Your task to perform on an android device: Search for "asus rog" on newegg.com, select the first entry, and add it to the cart. Image 0: 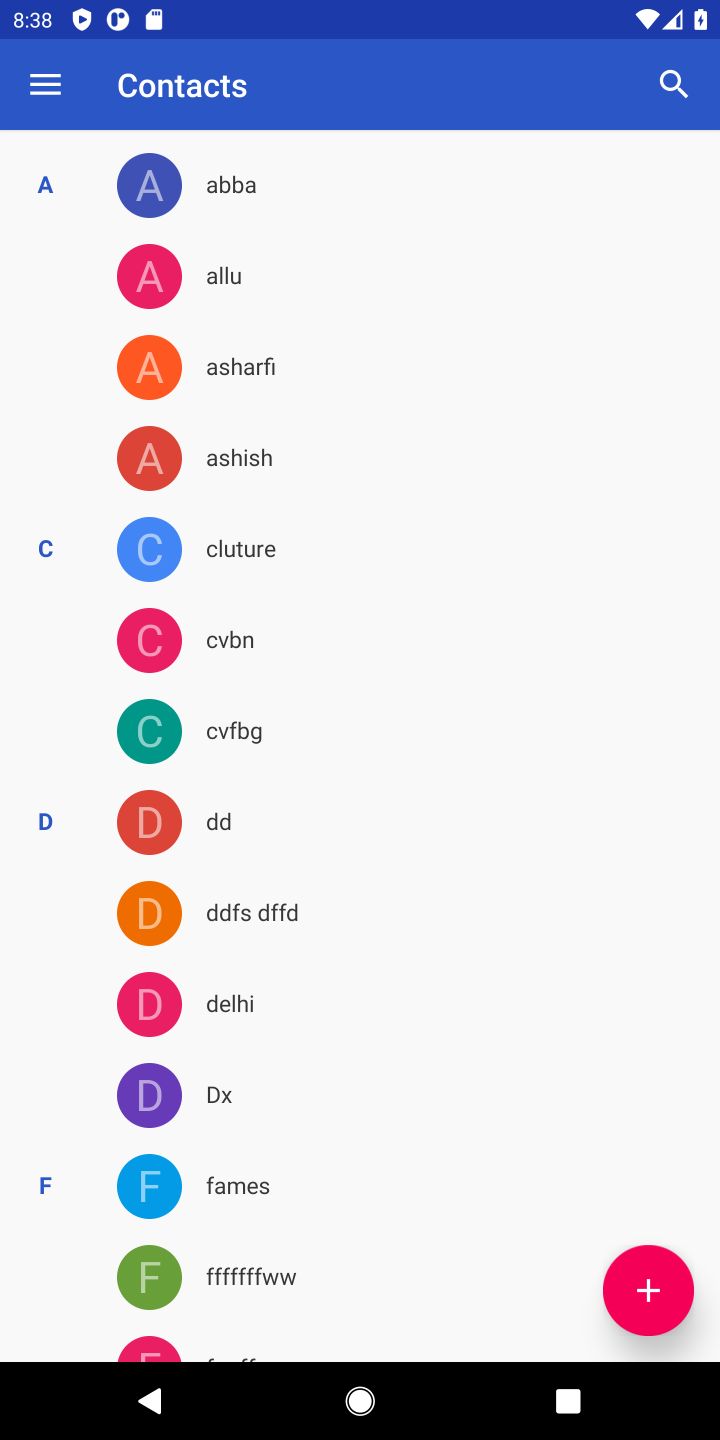
Step 0: press home button
Your task to perform on an android device: Search for "asus rog" on newegg.com, select the first entry, and add it to the cart. Image 1: 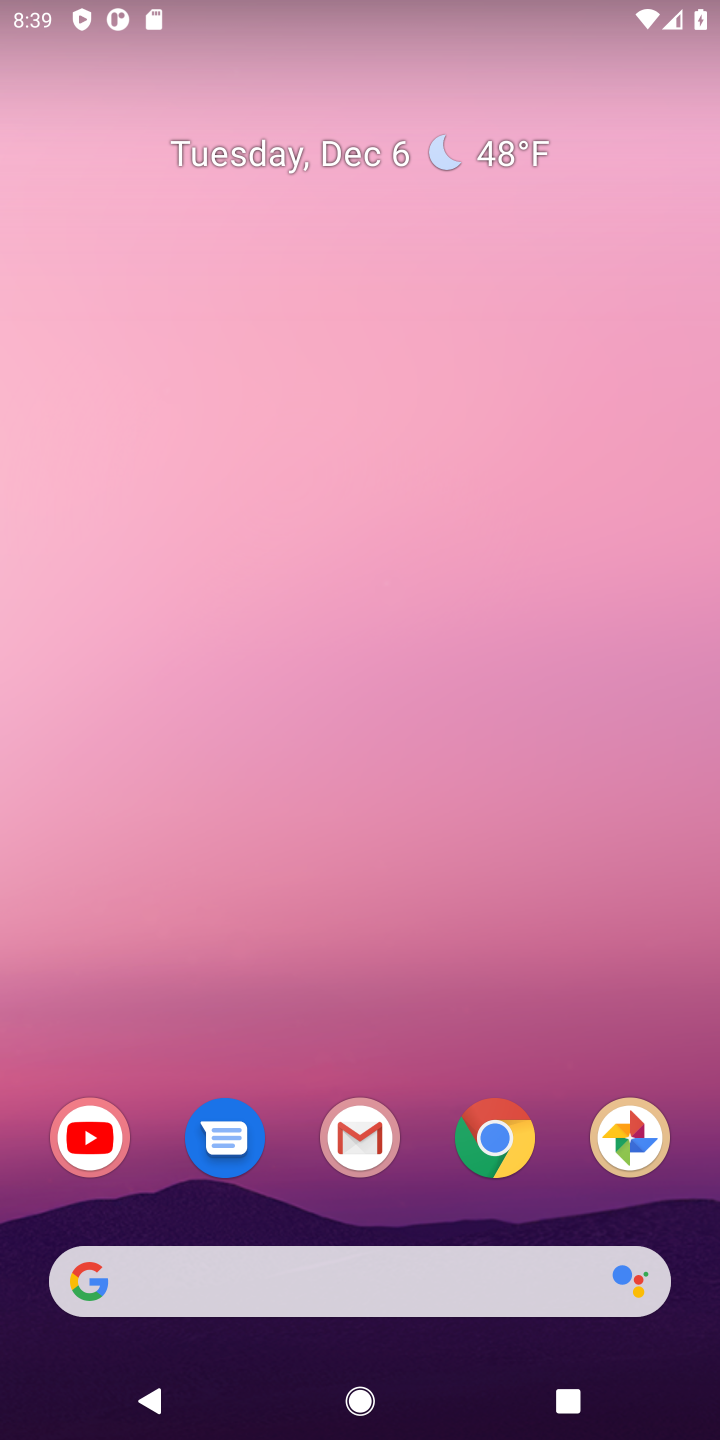
Step 1: click (513, 1142)
Your task to perform on an android device: Search for "asus rog" on newegg.com, select the first entry, and add it to the cart. Image 2: 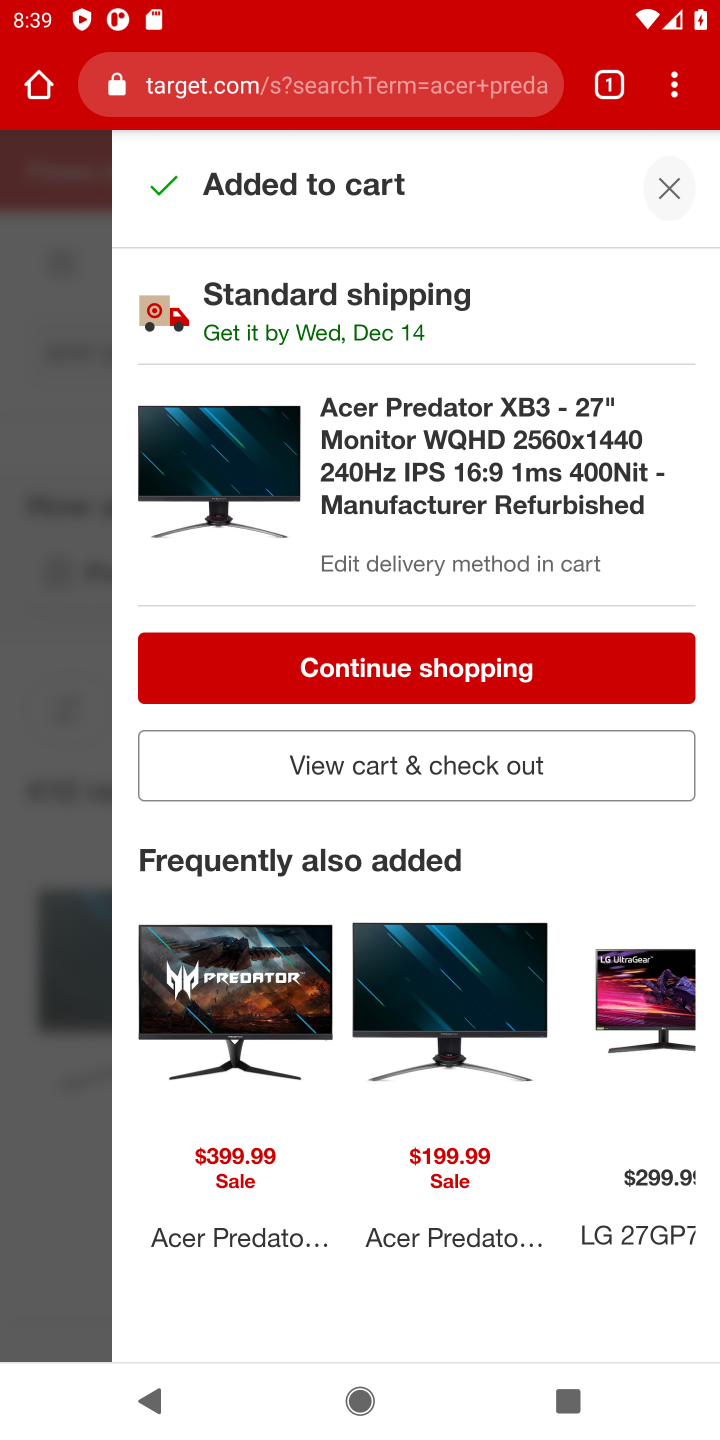
Step 2: click (314, 95)
Your task to perform on an android device: Search for "asus rog" on newegg.com, select the first entry, and add it to the cart. Image 3: 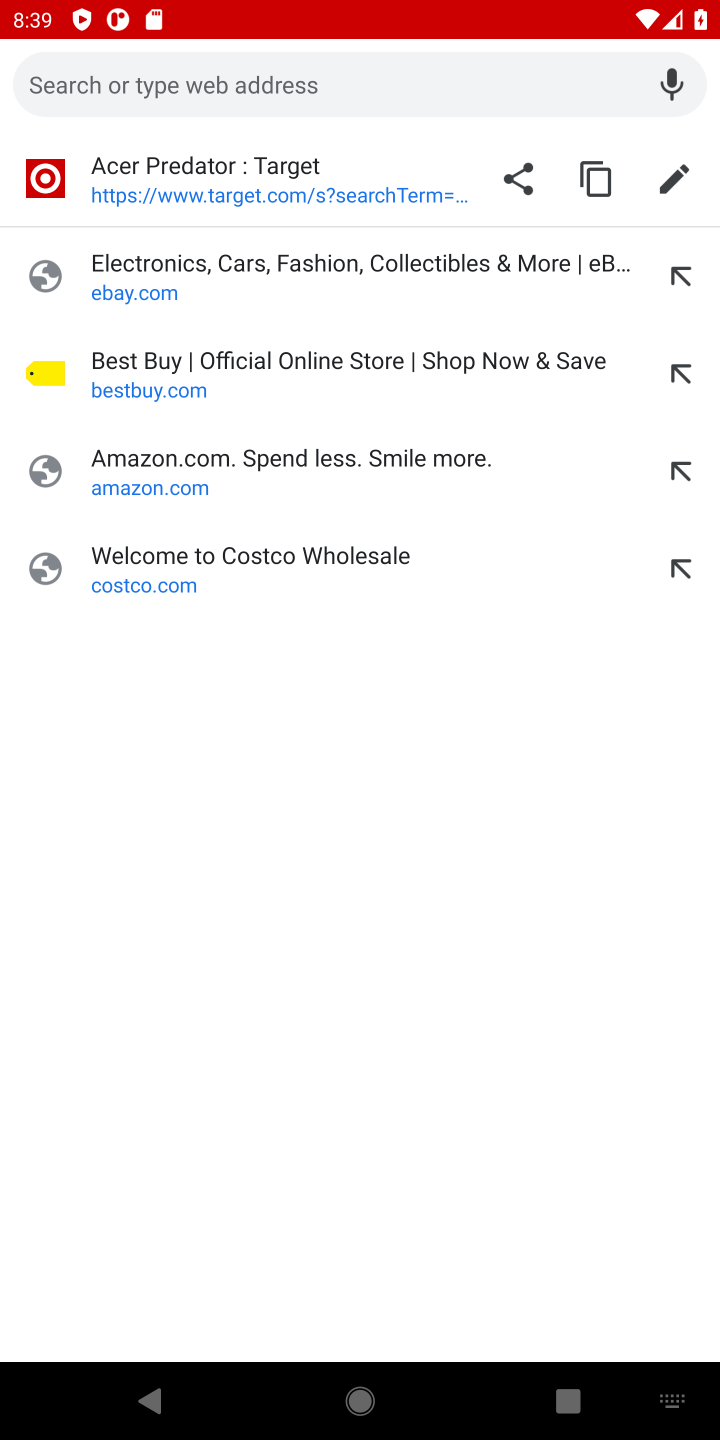
Step 3: type "newegg.com"
Your task to perform on an android device: Search for "asus rog" on newegg.com, select the first entry, and add it to the cart. Image 4: 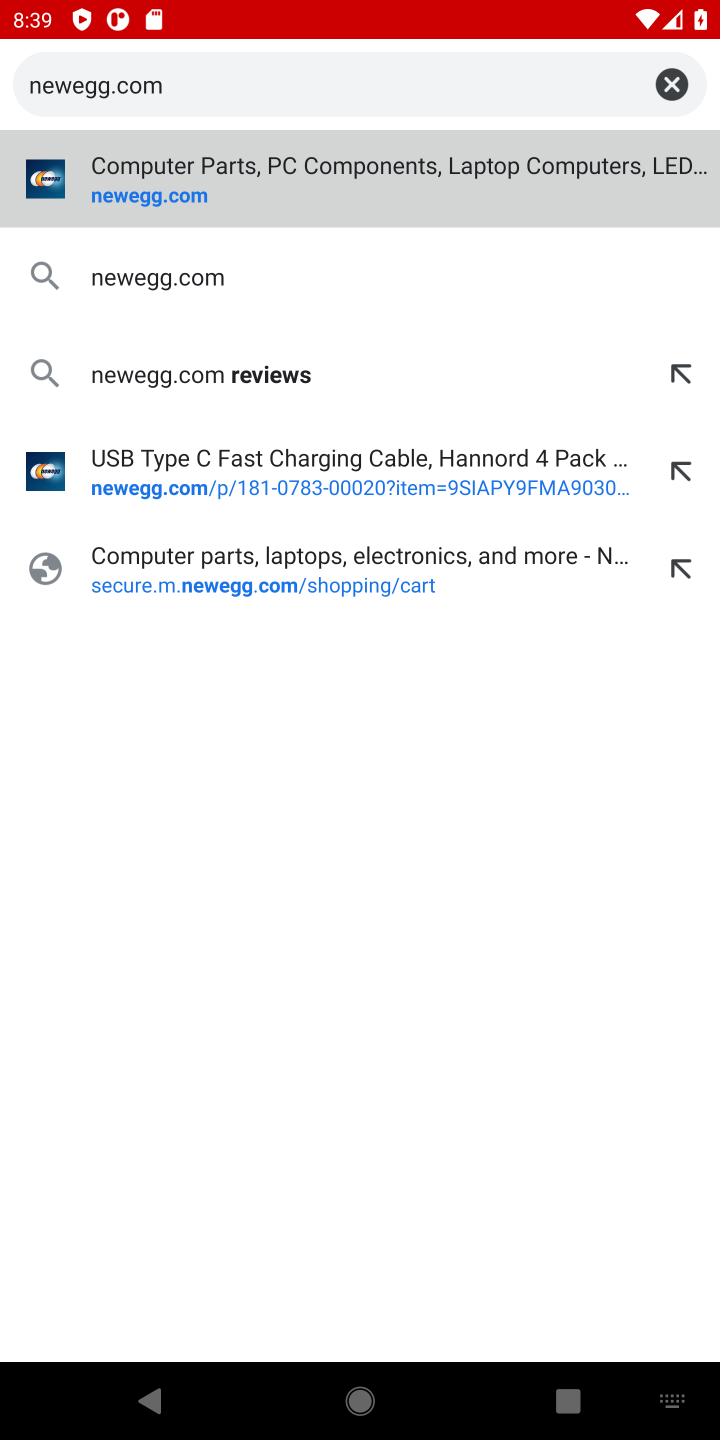
Step 4: click (113, 179)
Your task to perform on an android device: Search for "asus rog" on newegg.com, select the first entry, and add it to the cart. Image 5: 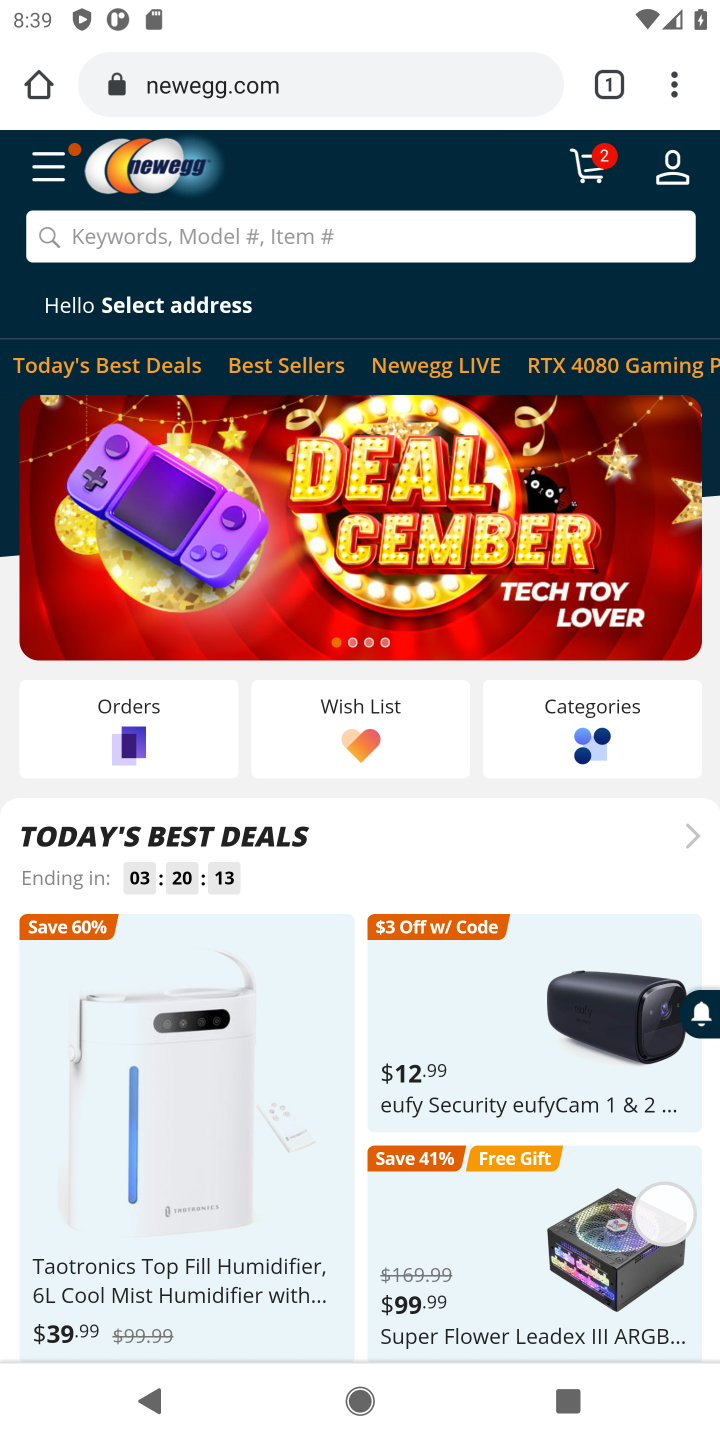
Step 5: click (120, 244)
Your task to perform on an android device: Search for "asus rog" on newegg.com, select the first entry, and add it to the cart. Image 6: 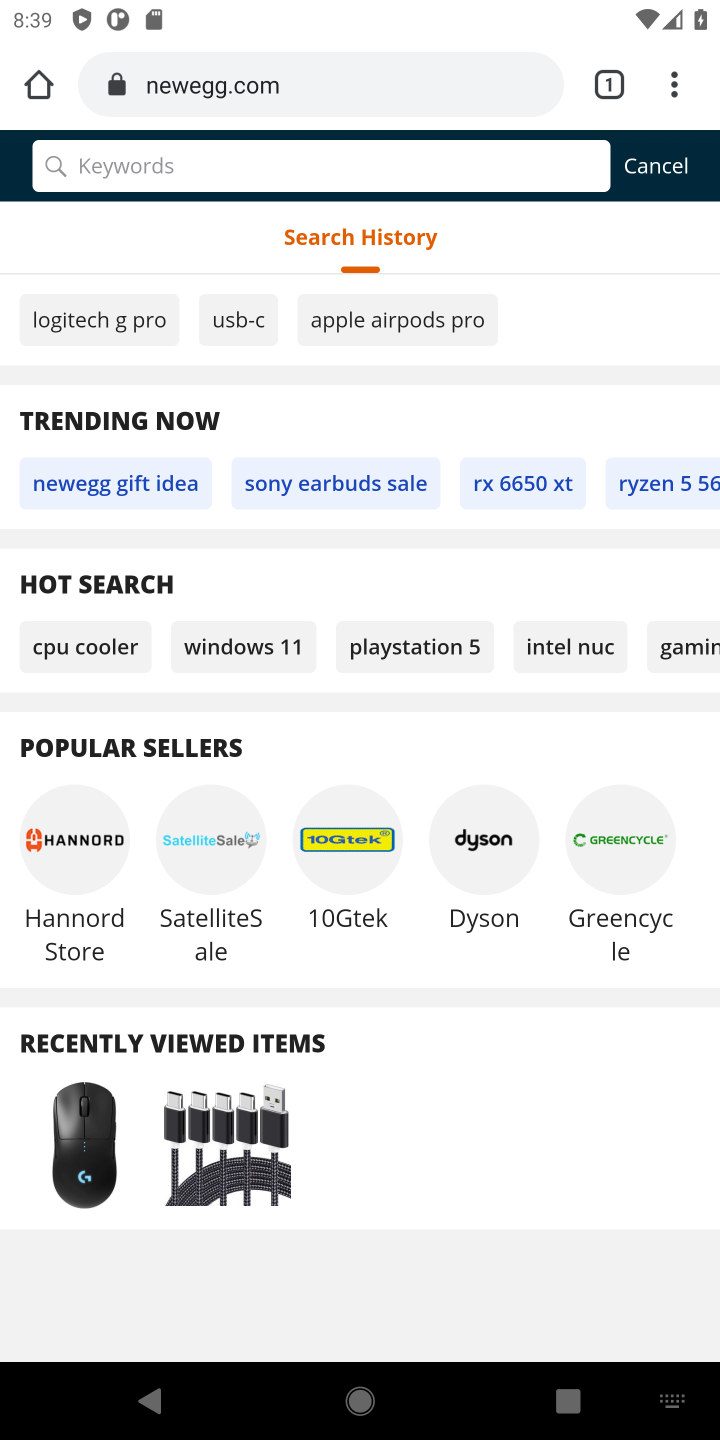
Step 6: type "asus rog"
Your task to perform on an android device: Search for "asus rog" on newegg.com, select the first entry, and add it to the cart. Image 7: 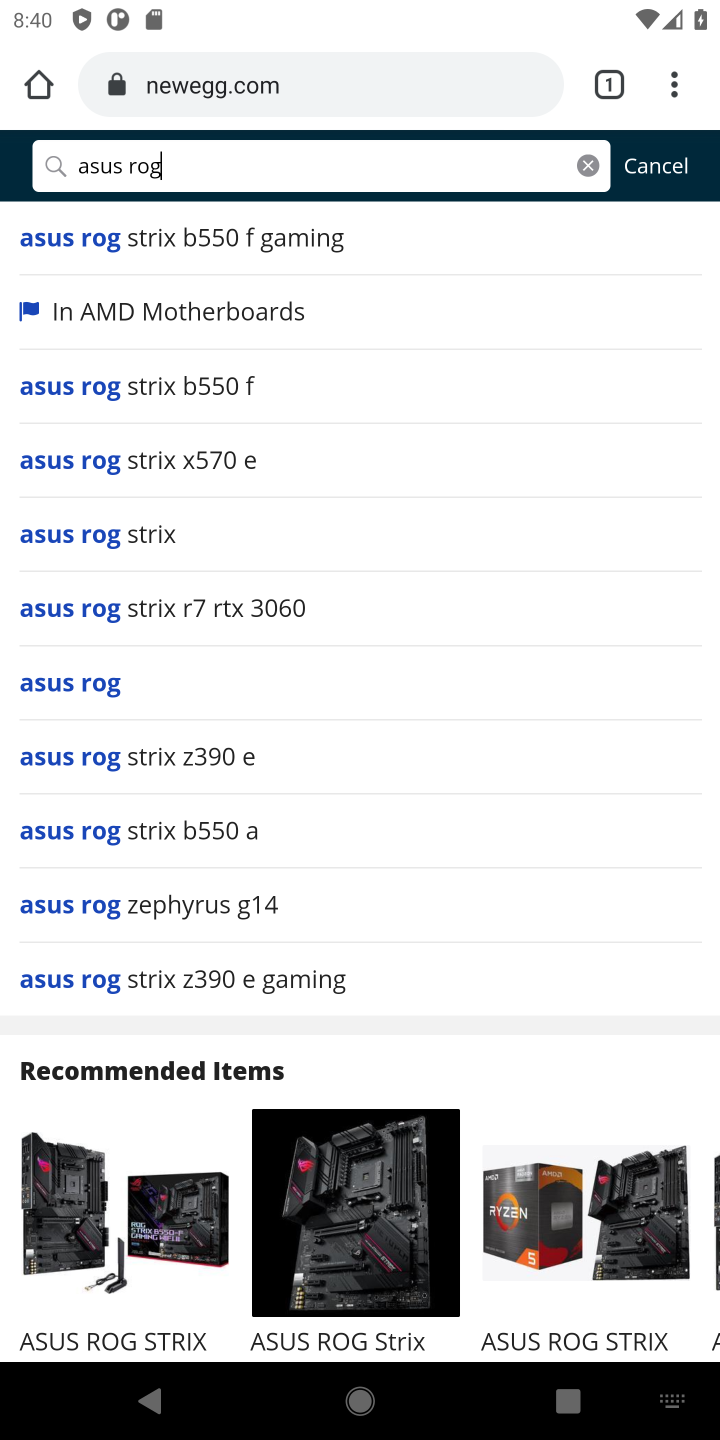
Step 7: click (57, 682)
Your task to perform on an android device: Search for "asus rog" on newegg.com, select the first entry, and add it to the cart. Image 8: 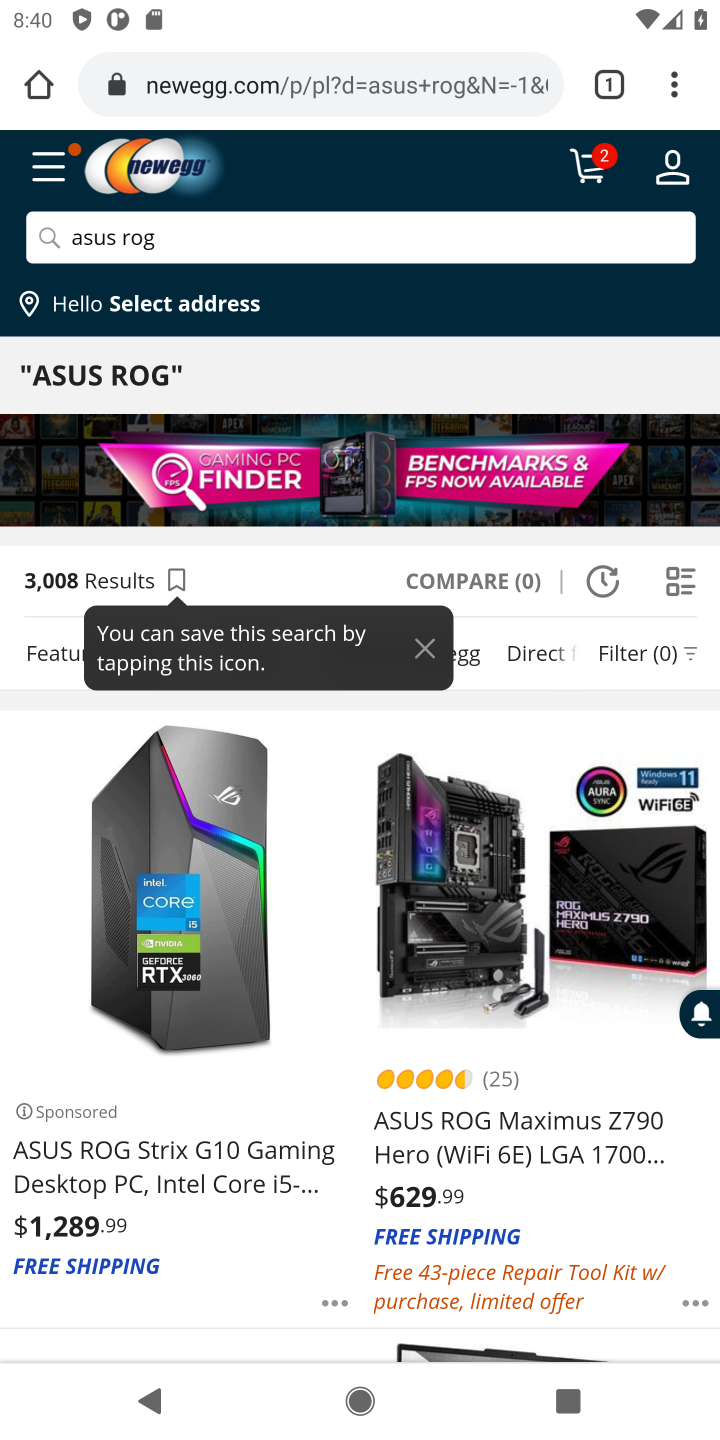
Step 8: click (143, 1166)
Your task to perform on an android device: Search for "asus rog" on newegg.com, select the first entry, and add it to the cart. Image 9: 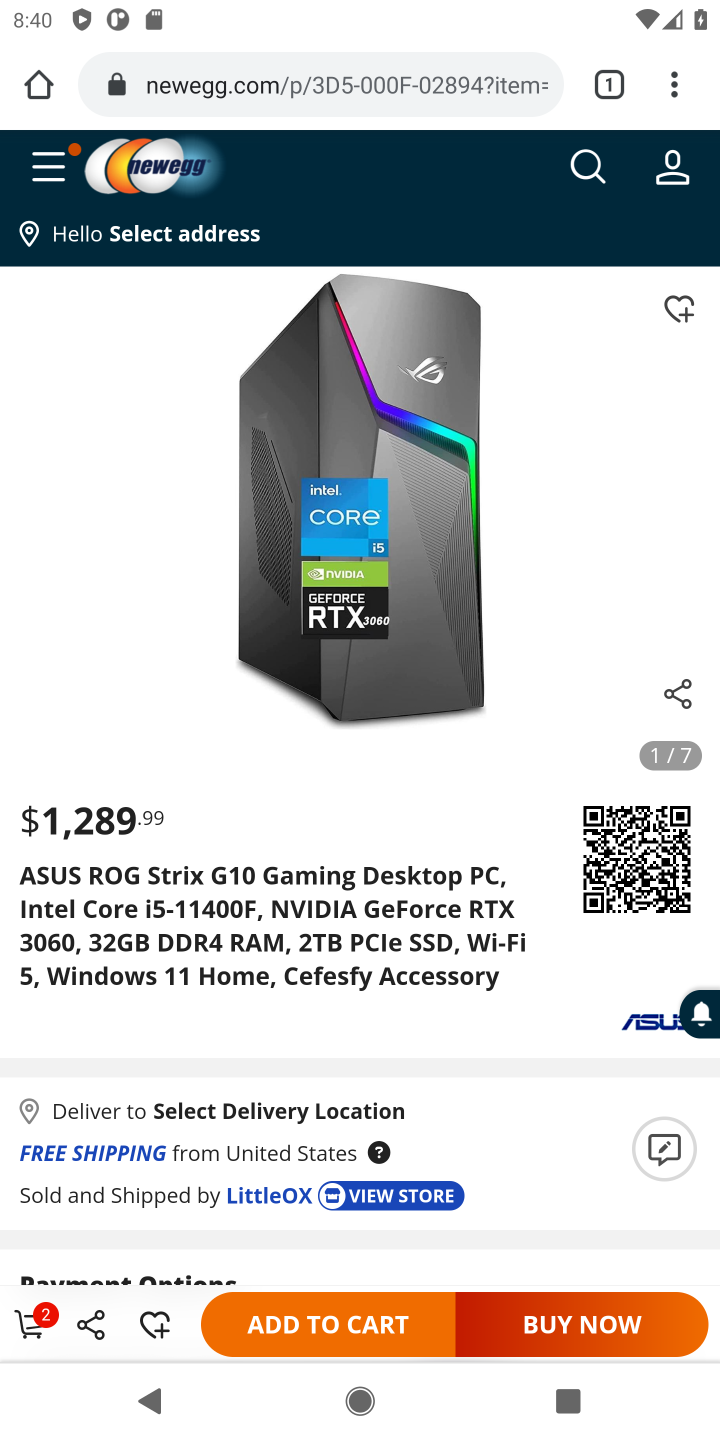
Step 9: click (312, 1340)
Your task to perform on an android device: Search for "asus rog" on newegg.com, select the first entry, and add it to the cart. Image 10: 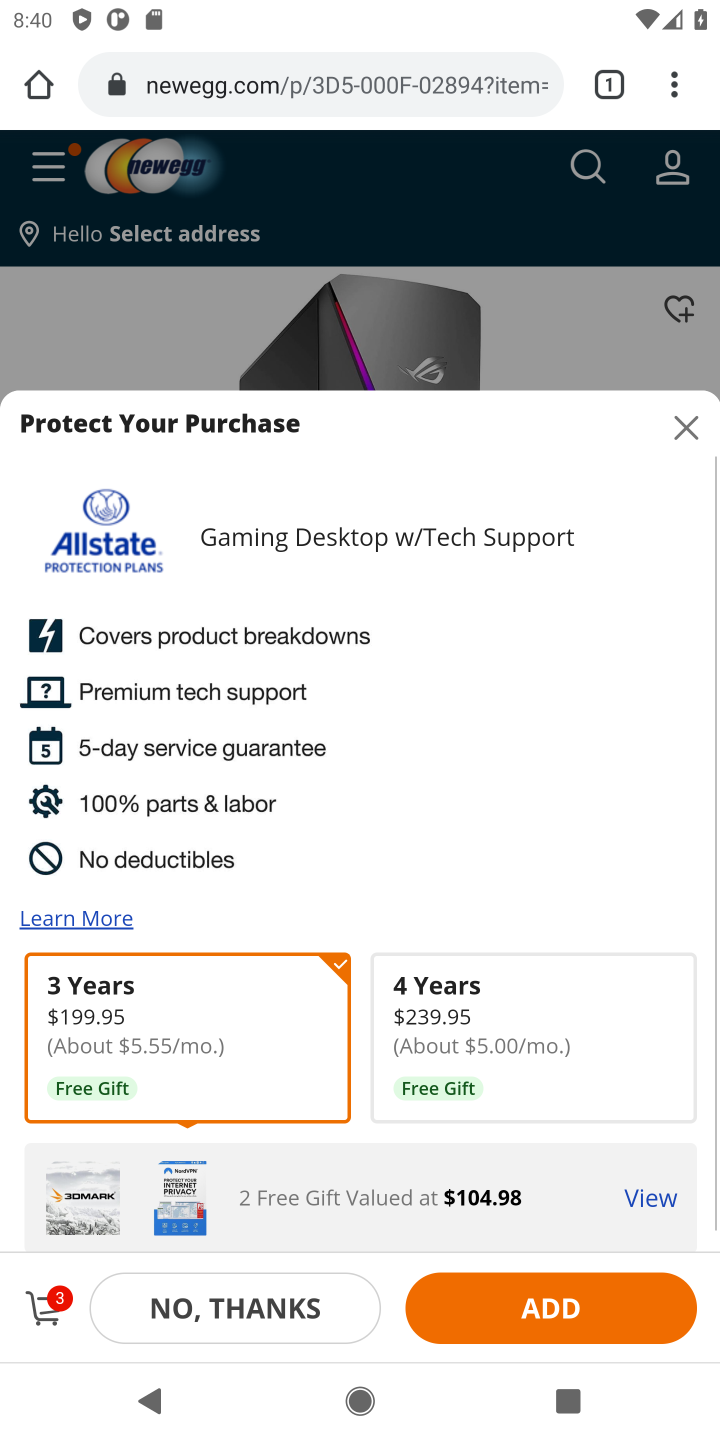
Step 10: task complete